Your task to perform on an android device: visit the assistant section in the google photos Image 0: 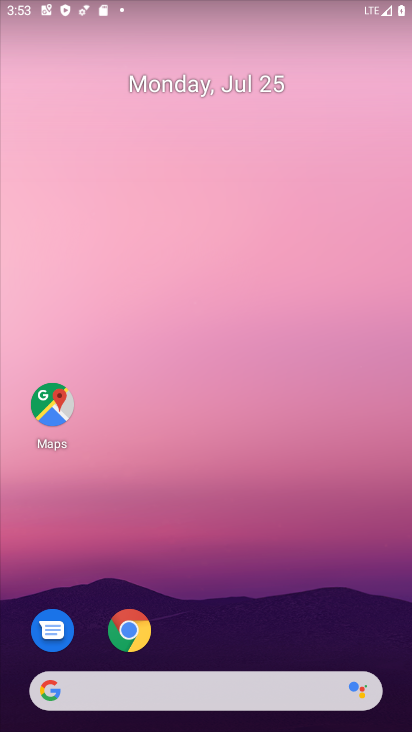
Step 0: drag from (197, 641) to (293, 14)
Your task to perform on an android device: visit the assistant section in the google photos Image 1: 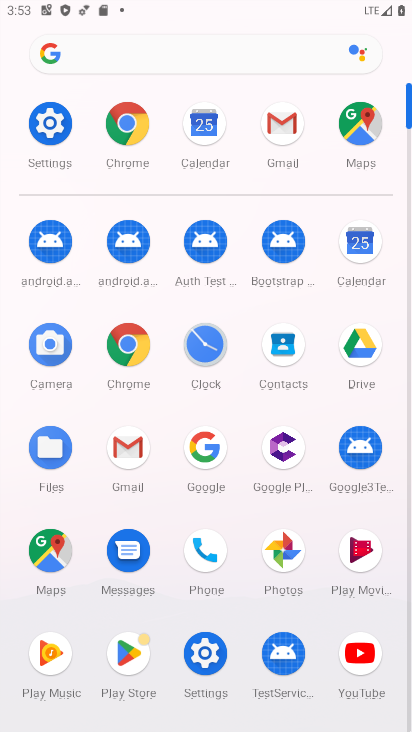
Step 1: click (275, 557)
Your task to perform on an android device: visit the assistant section in the google photos Image 2: 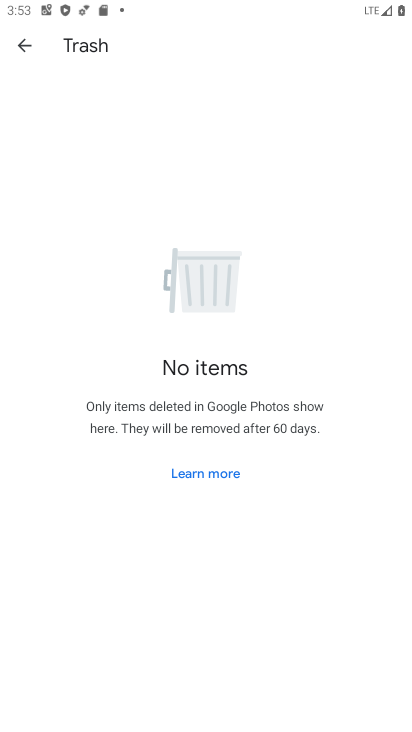
Step 2: click (20, 44)
Your task to perform on an android device: visit the assistant section in the google photos Image 3: 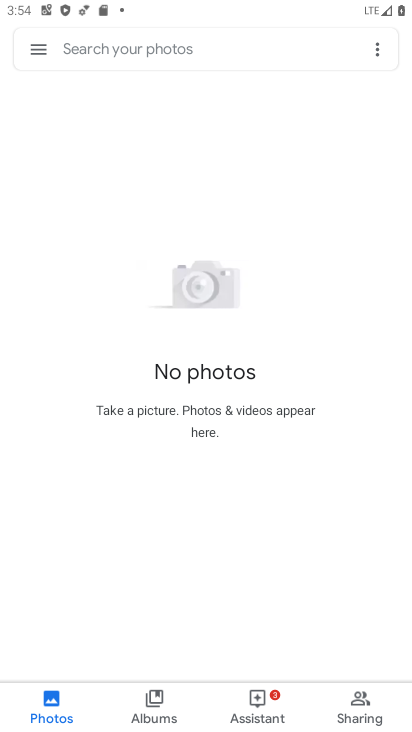
Step 3: click (256, 712)
Your task to perform on an android device: visit the assistant section in the google photos Image 4: 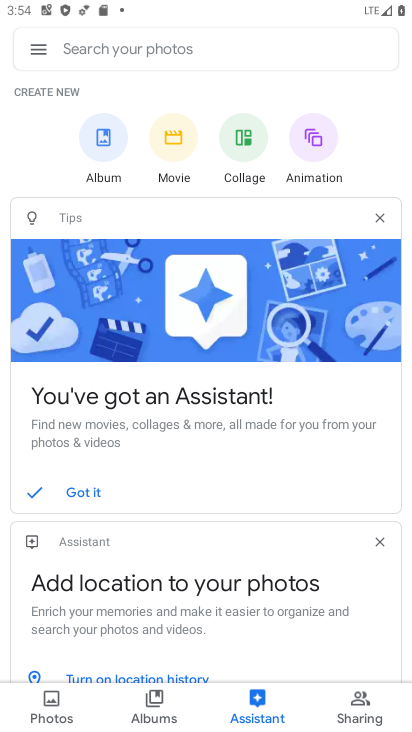
Step 4: task complete